Your task to perform on an android device: refresh tabs in the chrome app Image 0: 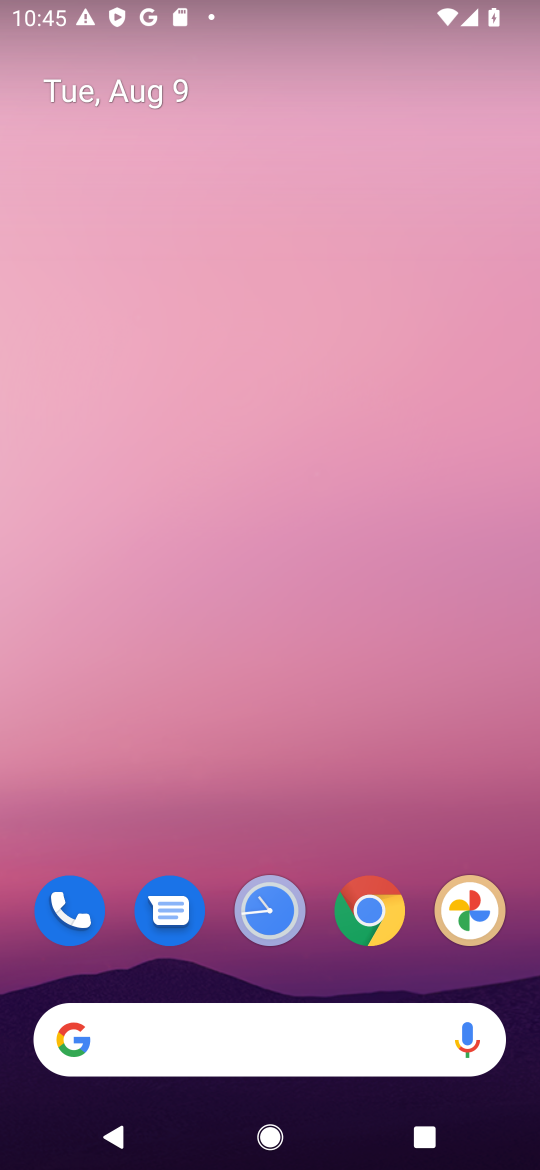
Step 0: click (379, 933)
Your task to perform on an android device: refresh tabs in the chrome app Image 1: 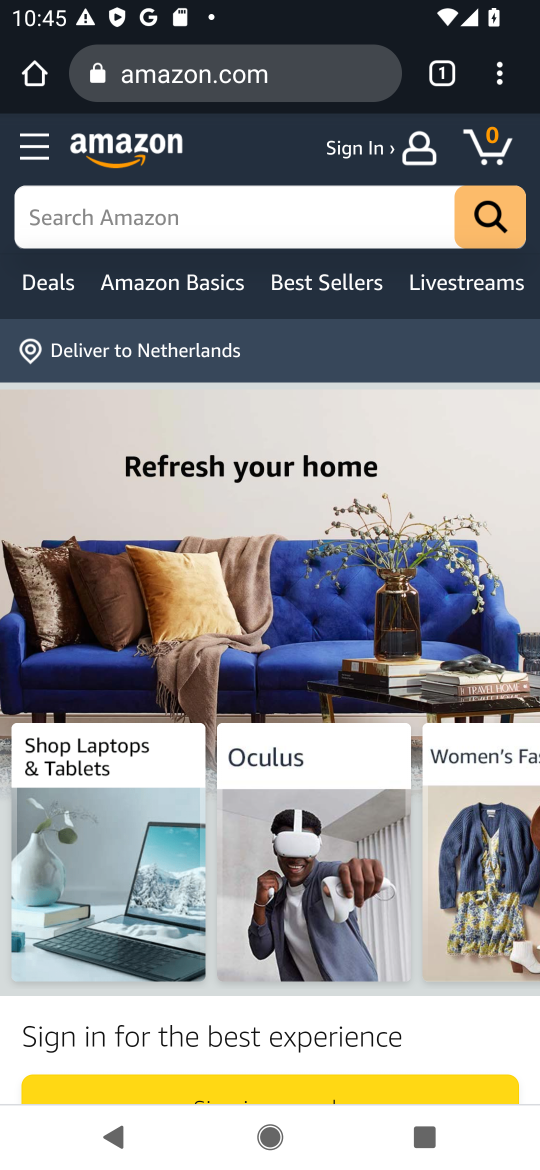
Step 1: click (501, 70)
Your task to perform on an android device: refresh tabs in the chrome app Image 2: 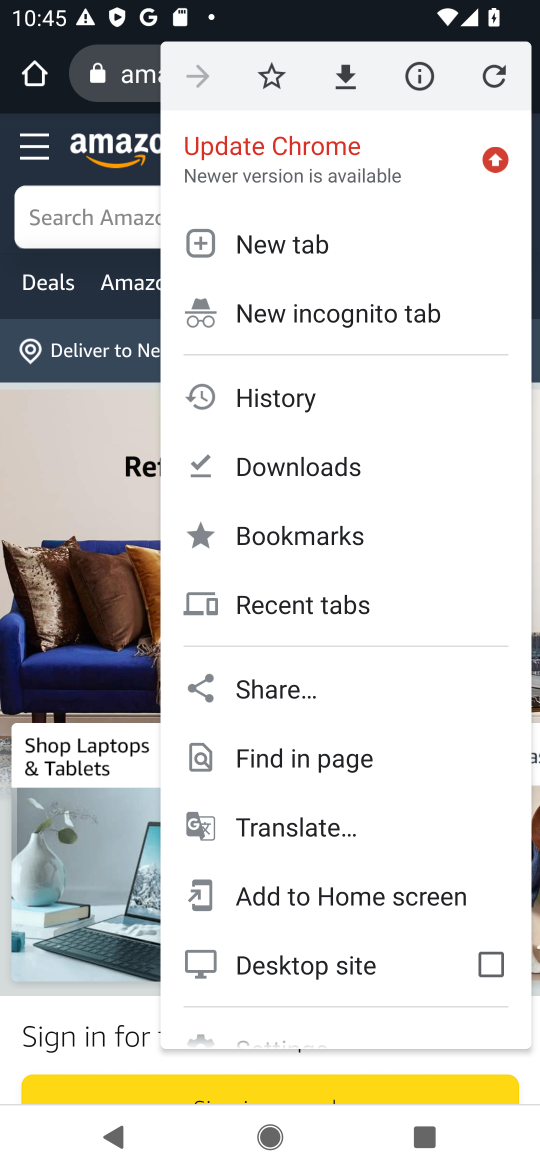
Step 2: click (485, 71)
Your task to perform on an android device: refresh tabs in the chrome app Image 3: 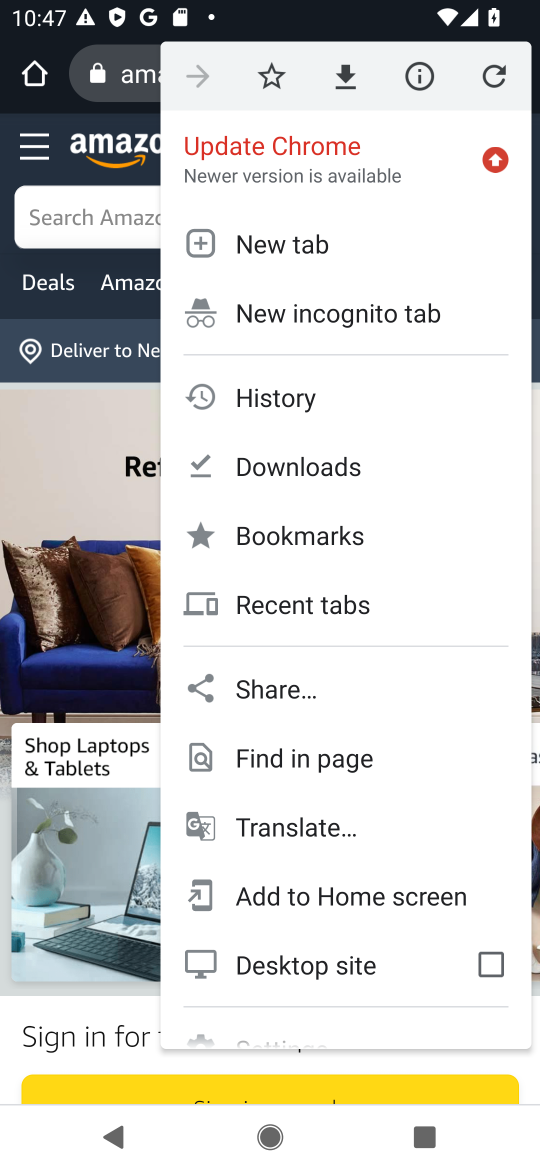
Step 3: task complete